Your task to perform on an android device: turn vacation reply on in the gmail app Image 0: 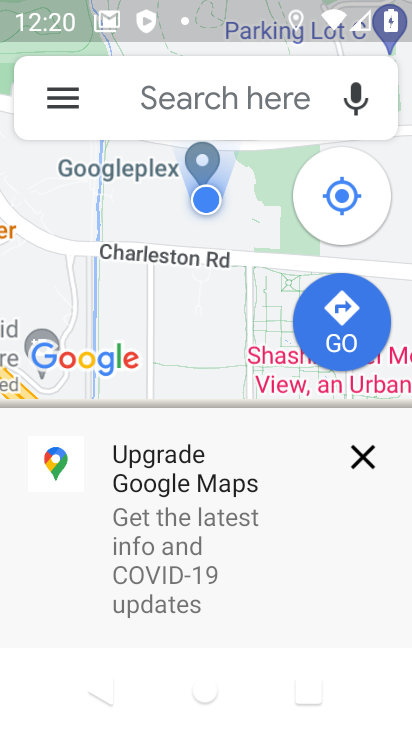
Step 0: drag from (369, 623) to (288, 60)
Your task to perform on an android device: turn vacation reply on in the gmail app Image 1: 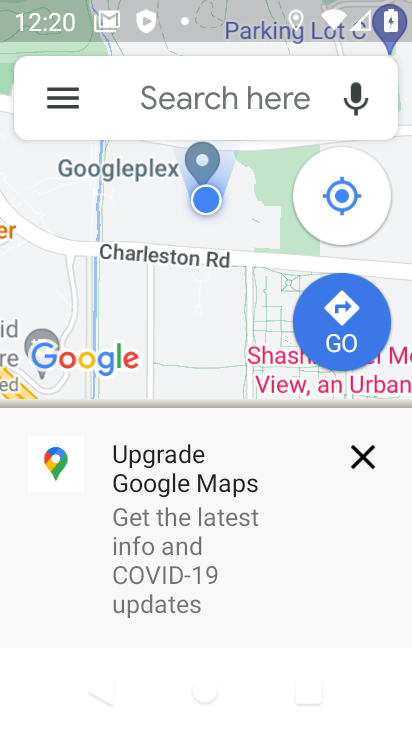
Step 1: press home button
Your task to perform on an android device: turn vacation reply on in the gmail app Image 2: 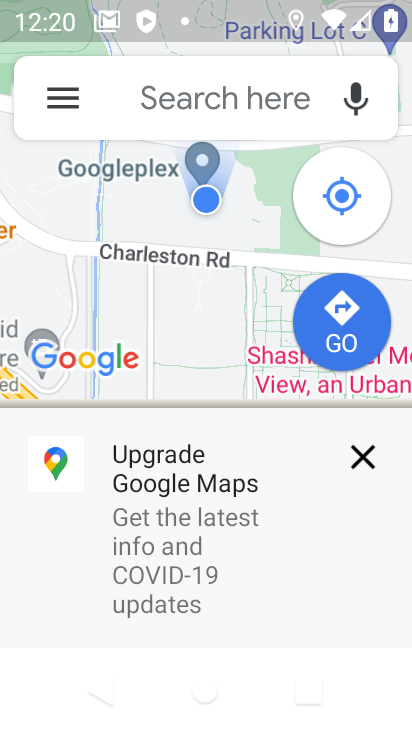
Step 2: press home button
Your task to perform on an android device: turn vacation reply on in the gmail app Image 3: 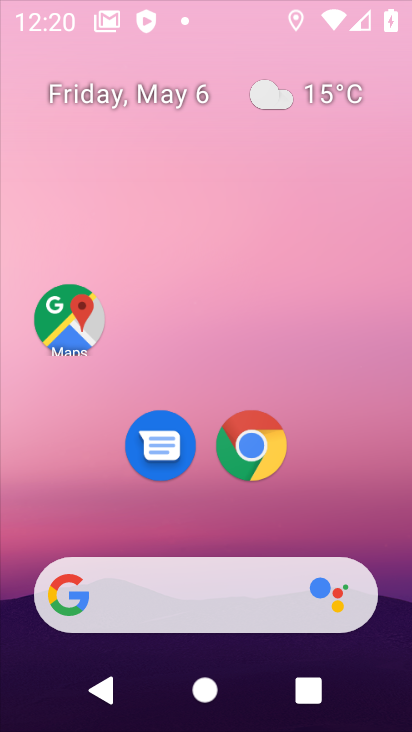
Step 3: press home button
Your task to perform on an android device: turn vacation reply on in the gmail app Image 4: 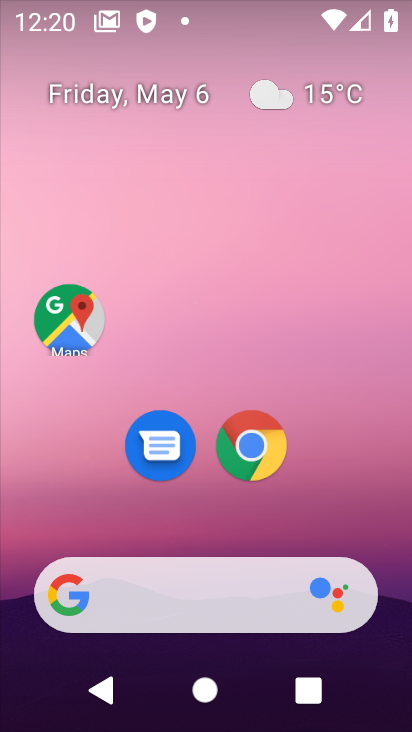
Step 4: press home button
Your task to perform on an android device: turn vacation reply on in the gmail app Image 5: 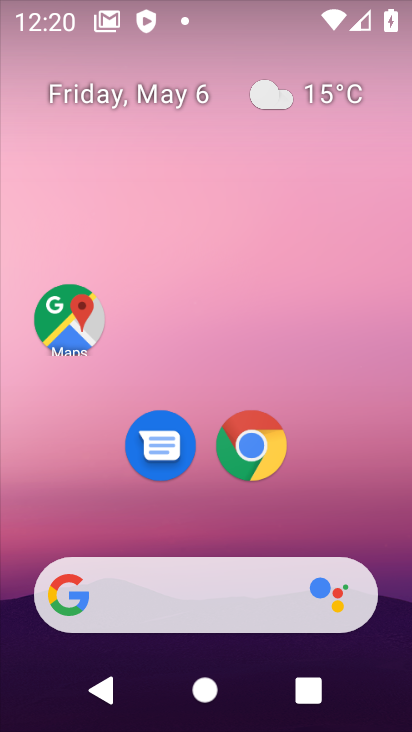
Step 5: press home button
Your task to perform on an android device: turn vacation reply on in the gmail app Image 6: 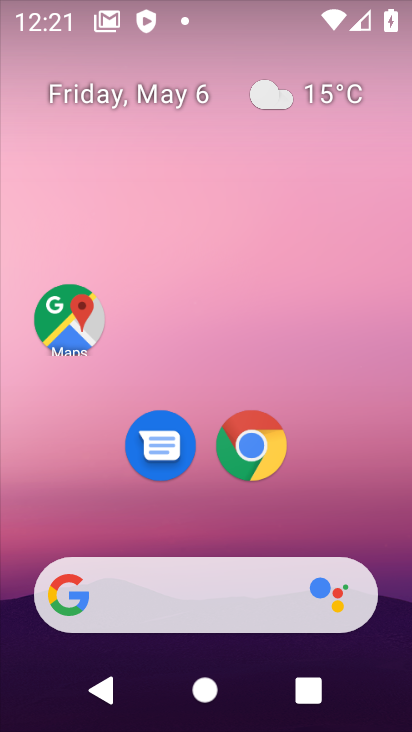
Step 6: drag from (342, 508) to (193, 28)
Your task to perform on an android device: turn vacation reply on in the gmail app Image 7: 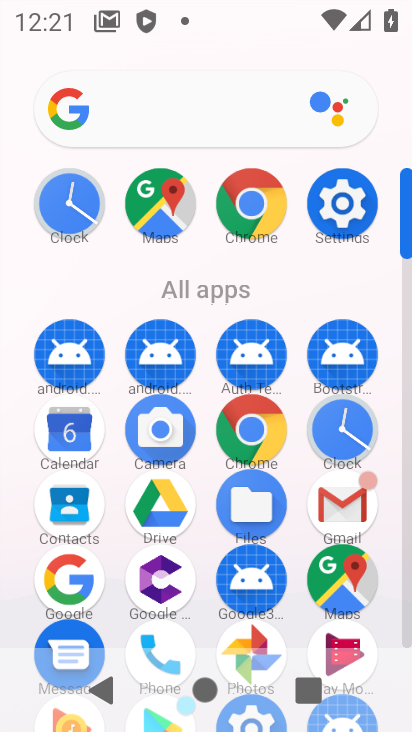
Step 7: click (351, 487)
Your task to perform on an android device: turn vacation reply on in the gmail app Image 8: 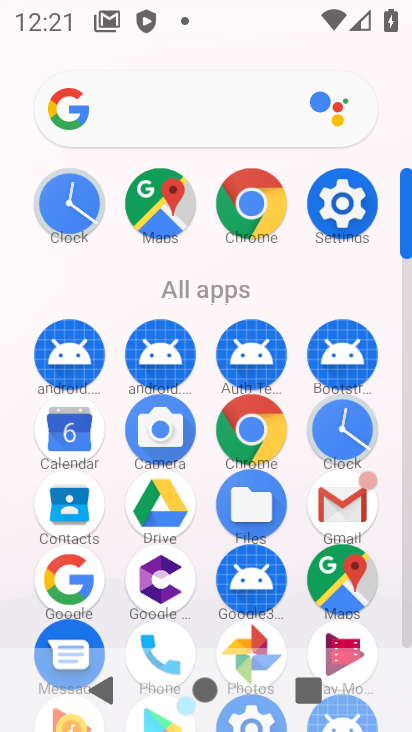
Step 8: click (351, 504)
Your task to perform on an android device: turn vacation reply on in the gmail app Image 9: 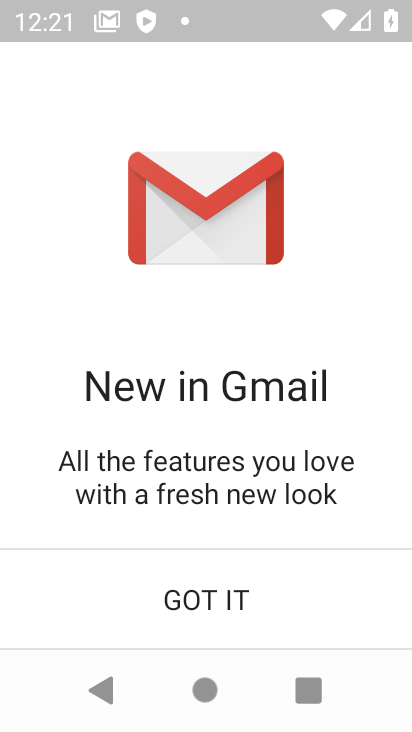
Step 9: click (182, 596)
Your task to perform on an android device: turn vacation reply on in the gmail app Image 10: 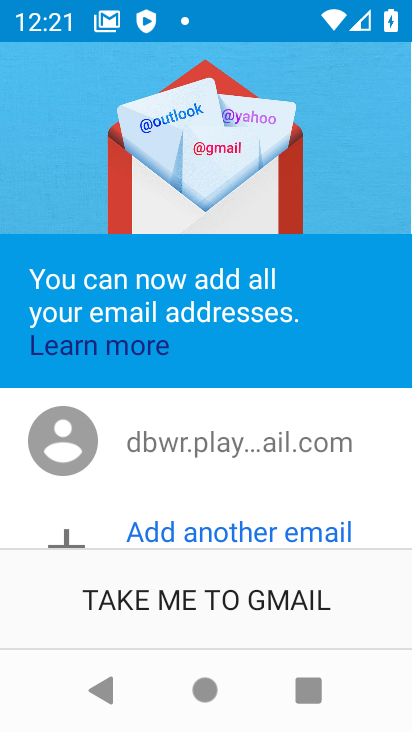
Step 10: click (244, 601)
Your task to perform on an android device: turn vacation reply on in the gmail app Image 11: 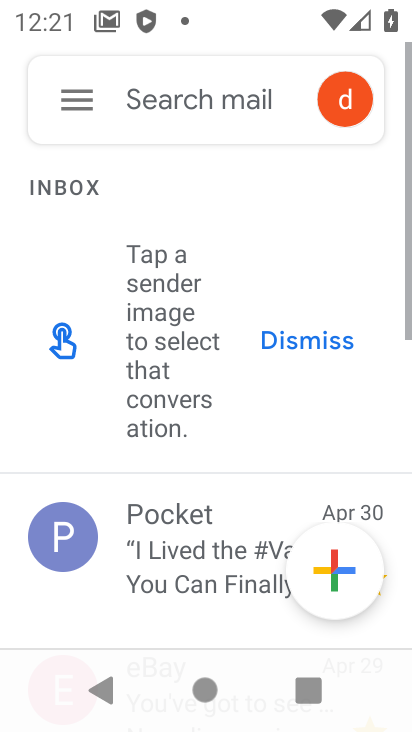
Step 11: click (87, 95)
Your task to perform on an android device: turn vacation reply on in the gmail app Image 12: 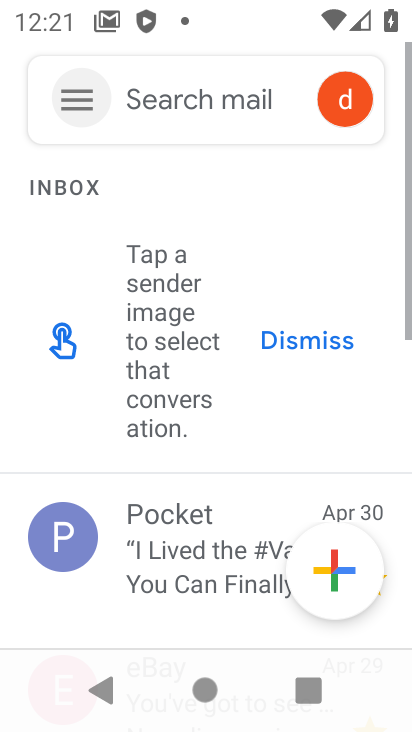
Step 12: click (87, 95)
Your task to perform on an android device: turn vacation reply on in the gmail app Image 13: 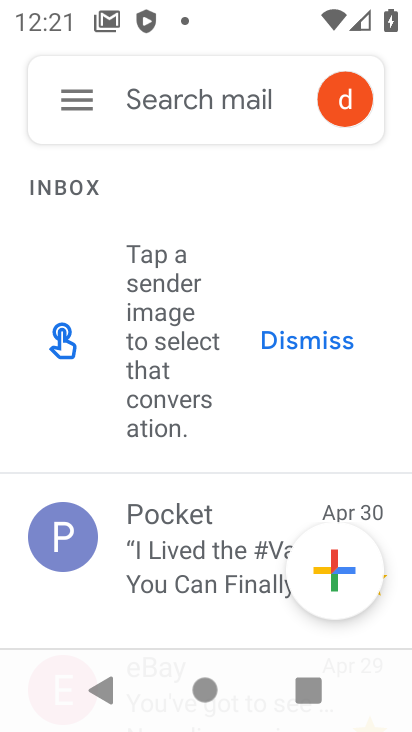
Step 13: click (78, 93)
Your task to perform on an android device: turn vacation reply on in the gmail app Image 14: 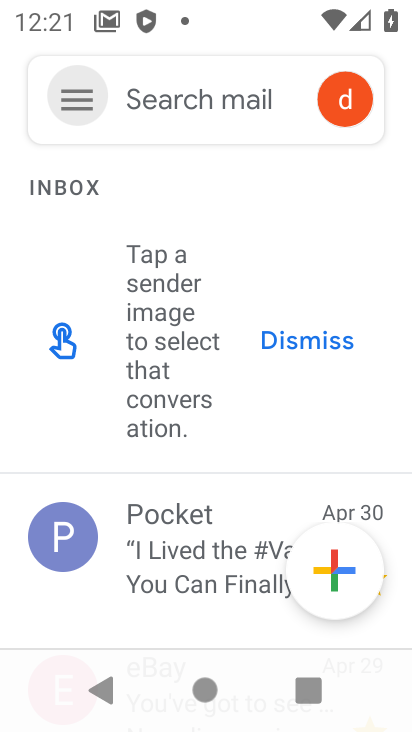
Step 14: click (86, 108)
Your task to perform on an android device: turn vacation reply on in the gmail app Image 15: 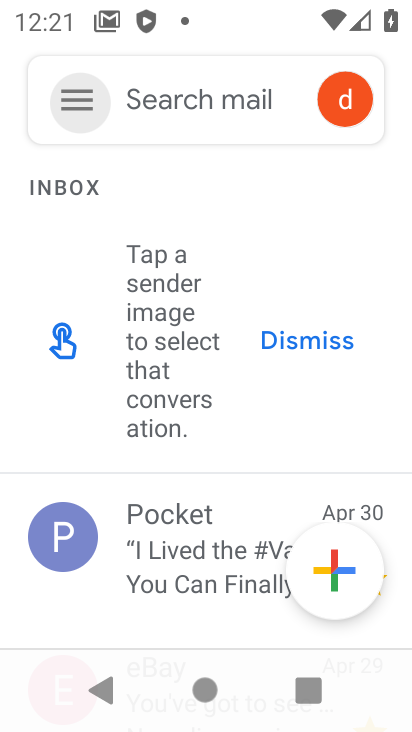
Step 15: click (86, 108)
Your task to perform on an android device: turn vacation reply on in the gmail app Image 16: 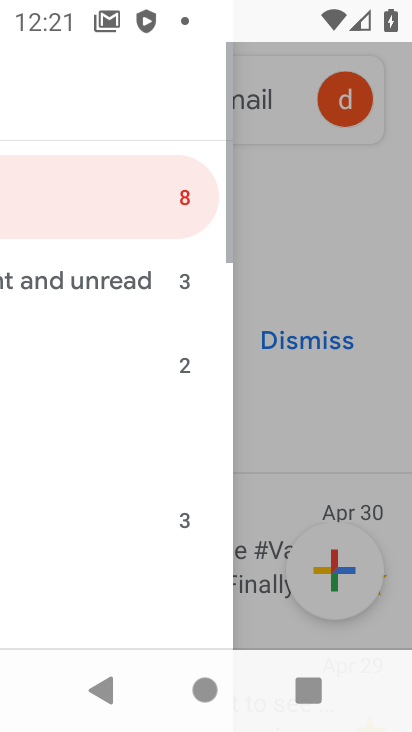
Step 16: click (86, 108)
Your task to perform on an android device: turn vacation reply on in the gmail app Image 17: 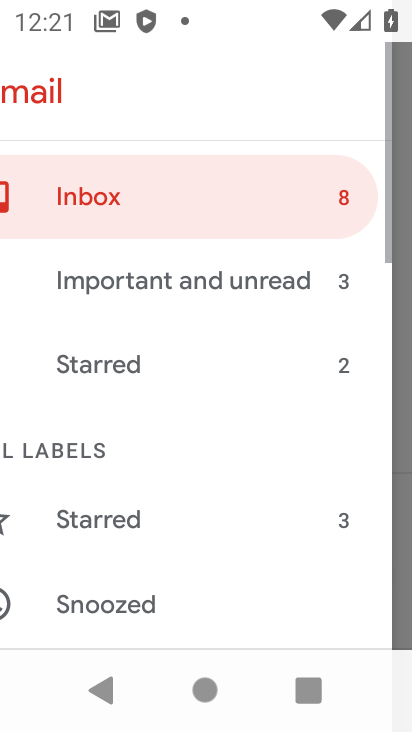
Step 17: click (86, 108)
Your task to perform on an android device: turn vacation reply on in the gmail app Image 18: 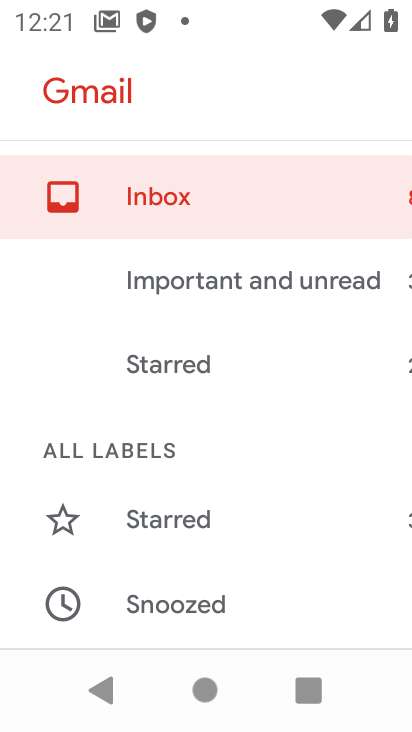
Step 18: drag from (181, 522) to (153, 113)
Your task to perform on an android device: turn vacation reply on in the gmail app Image 19: 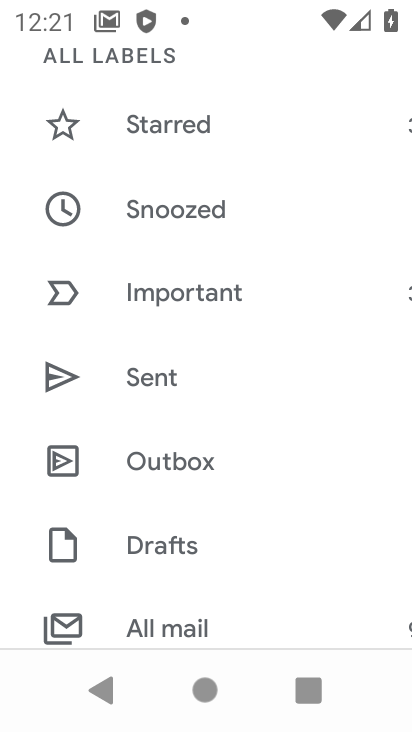
Step 19: drag from (184, 446) to (163, 29)
Your task to perform on an android device: turn vacation reply on in the gmail app Image 20: 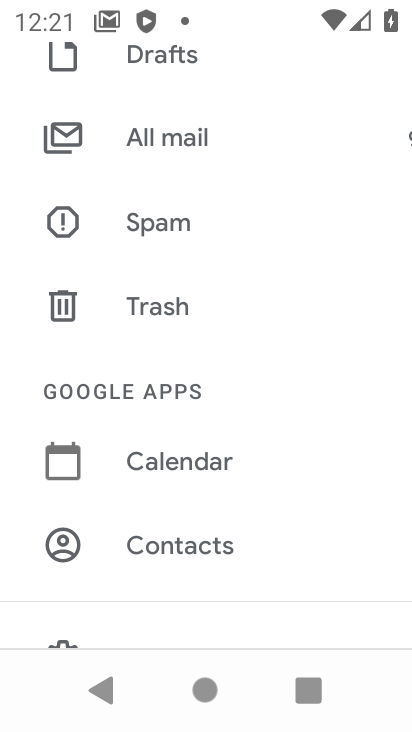
Step 20: drag from (216, 531) to (186, 36)
Your task to perform on an android device: turn vacation reply on in the gmail app Image 21: 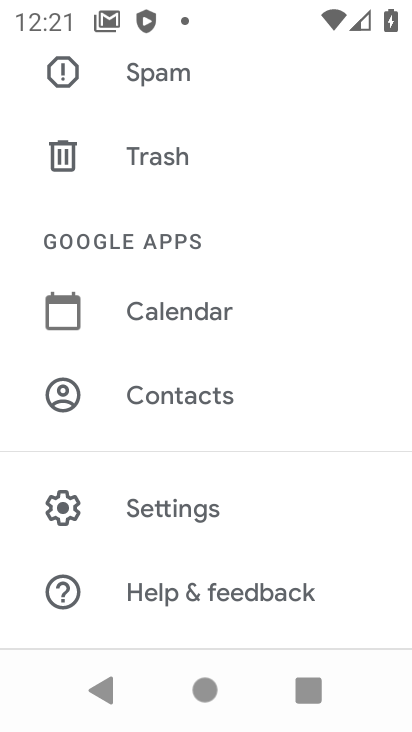
Step 21: click (172, 508)
Your task to perform on an android device: turn vacation reply on in the gmail app Image 22: 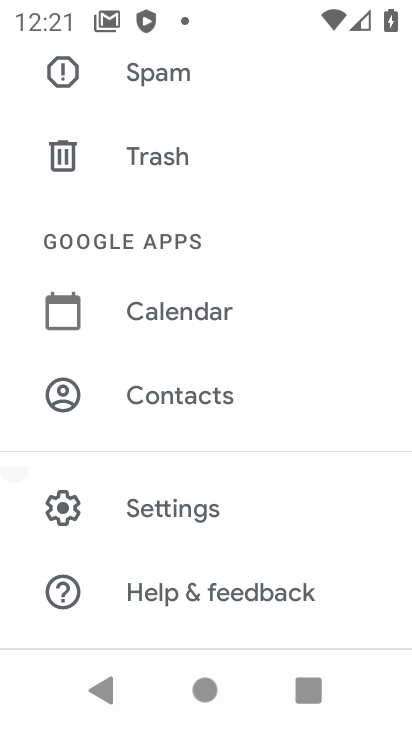
Step 22: click (172, 508)
Your task to perform on an android device: turn vacation reply on in the gmail app Image 23: 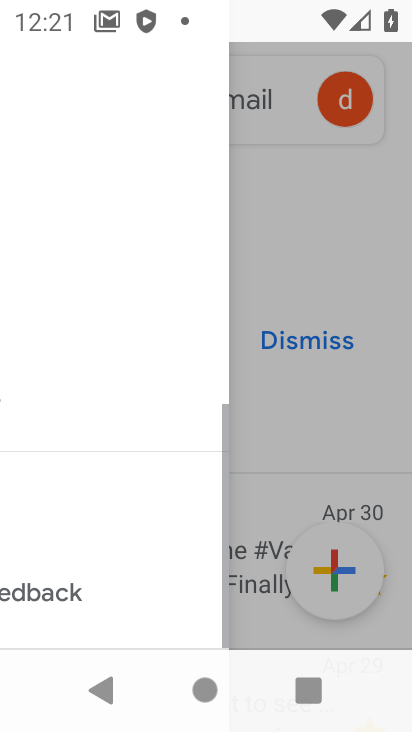
Step 23: click (172, 508)
Your task to perform on an android device: turn vacation reply on in the gmail app Image 24: 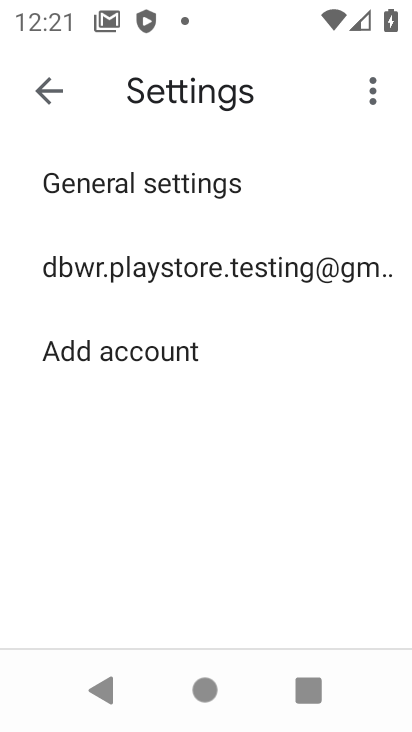
Step 24: click (158, 271)
Your task to perform on an android device: turn vacation reply on in the gmail app Image 25: 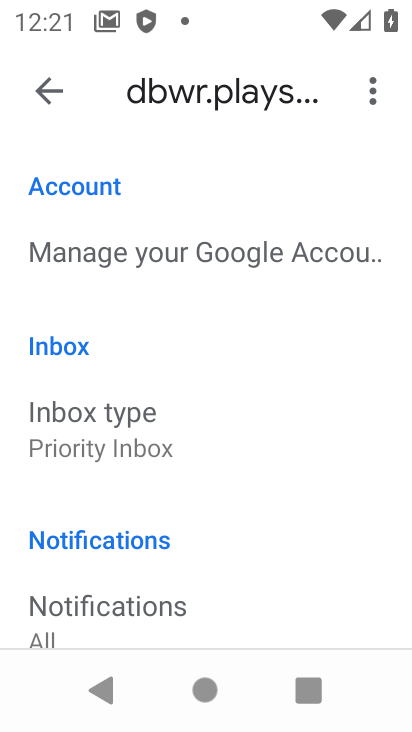
Step 25: drag from (149, 516) to (165, 144)
Your task to perform on an android device: turn vacation reply on in the gmail app Image 26: 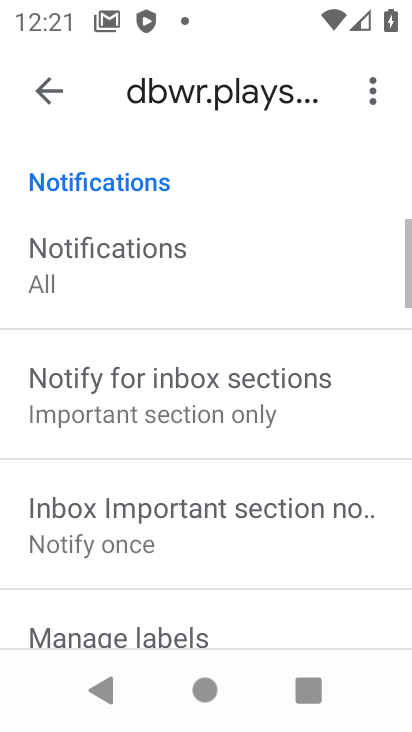
Step 26: drag from (195, 459) to (147, 38)
Your task to perform on an android device: turn vacation reply on in the gmail app Image 27: 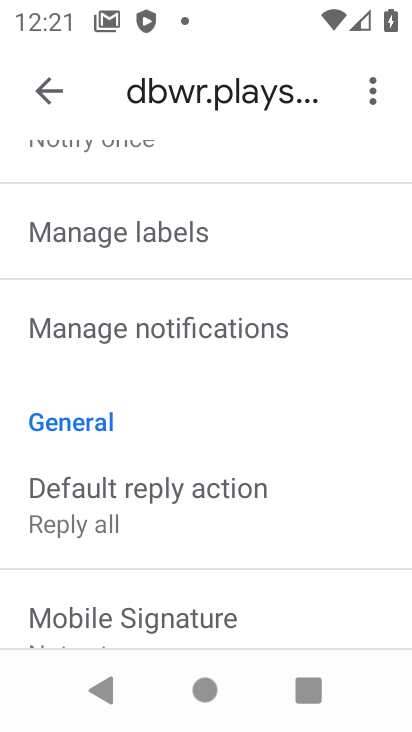
Step 27: drag from (169, 466) to (211, 54)
Your task to perform on an android device: turn vacation reply on in the gmail app Image 28: 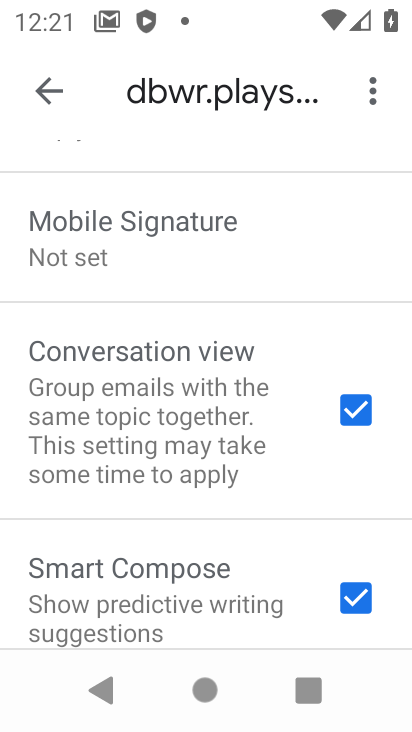
Step 28: drag from (164, 463) to (135, 92)
Your task to perform on an android device: turn vacation reply on in the gmail app Image 29: 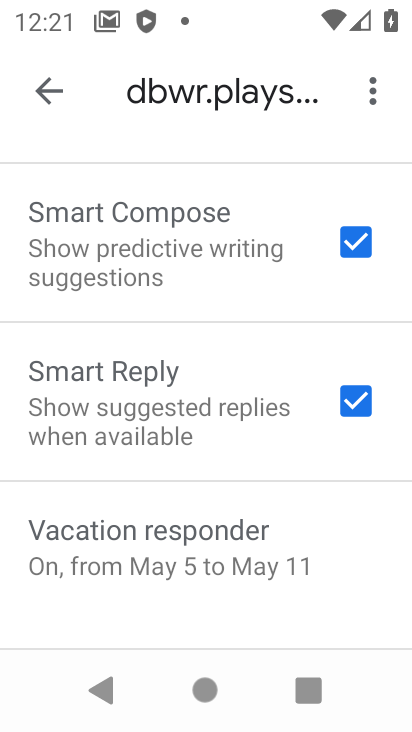
Step 29: click (157, 543)
Your task to perform on an android device: turn vacation reply on in the gmail app Image 30: 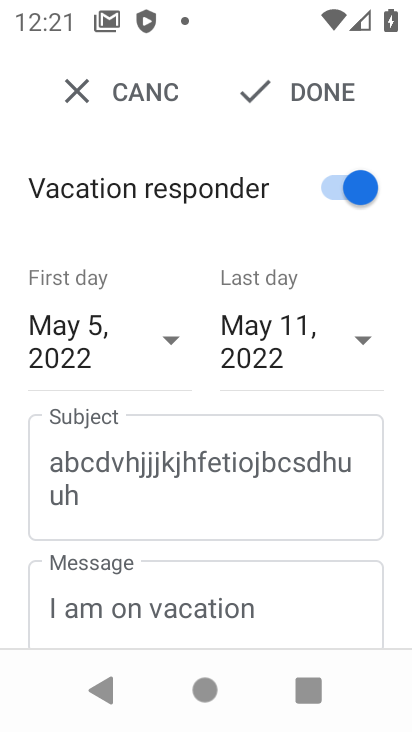
Step 30: task complete